Your task to perform on an android device: turn on javascript in the chrome app Image 0: 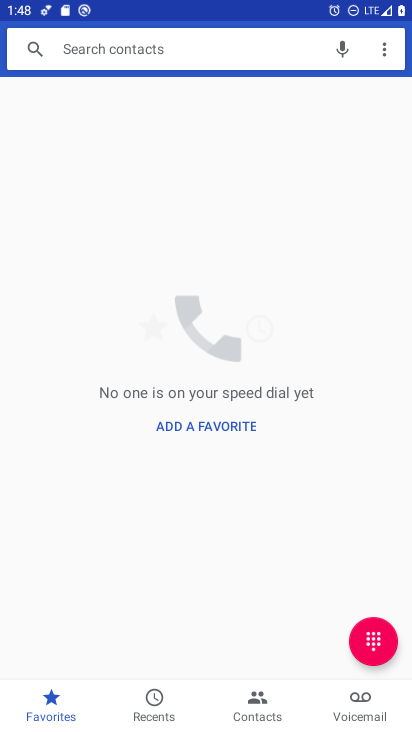
Step 0: press home button
Your task to perform on an android device: turn on javascript in the chrome app Image 1: 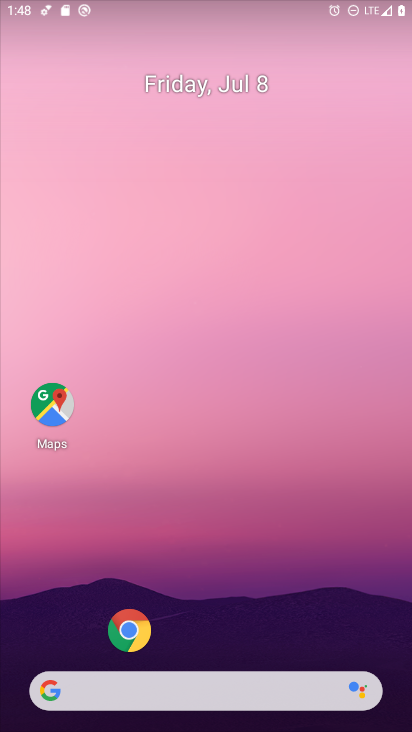
Step 1: drag from (339, 679) to (367, 31)
Your task to perform on an android device: turn on javascript in the chrome app Image 2: 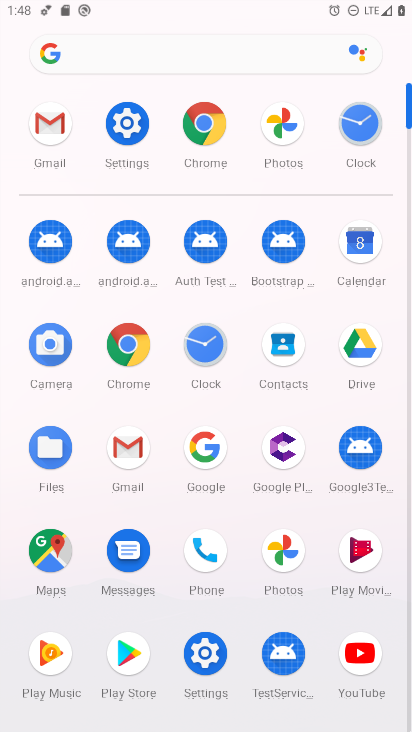
Step 2: click (142, 349)
Your task to perform on an android device: turn on javascript in the chrome app Image 3: 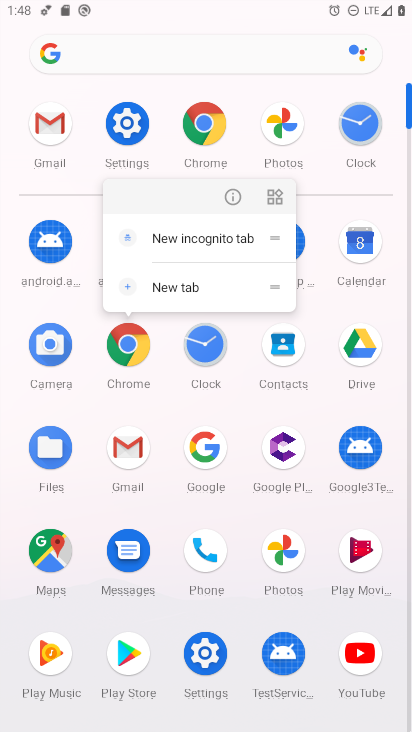
Step 3: click (142, 349)
Your task to perform on an android device: turn on javascript in the chrome app Image 4: 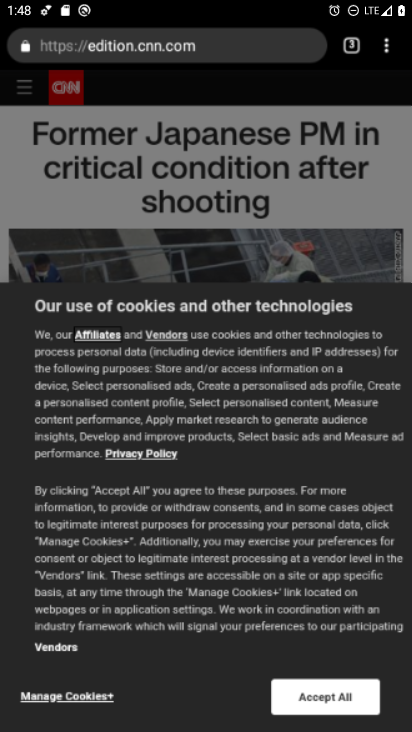
Step 4: drag from (383, 47) to (312, 317)
Your task to perform on an android device: turn on javascript in the chrome app Image 5: 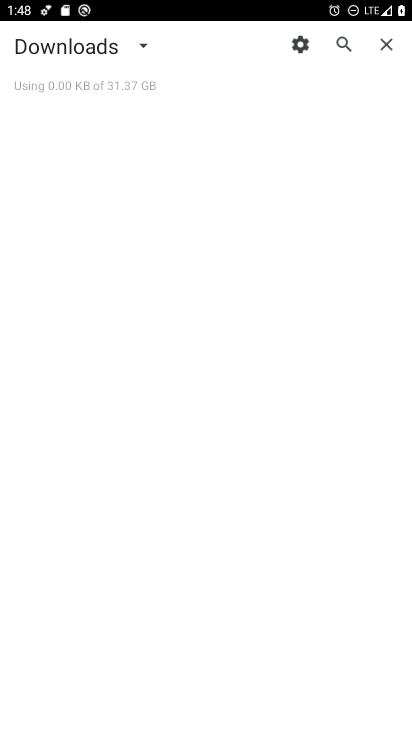
Step 5: press back button
Your task to perform on an android device: turn on javascript in the chrome app Image 6: 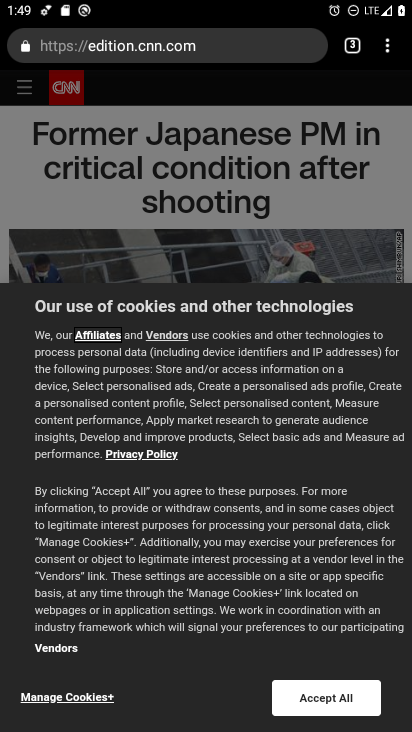
Step 6: drag from (386, 44) to (244, 500)
Your task to perform on an android device: turn on javascript in the chrome app Image 7: 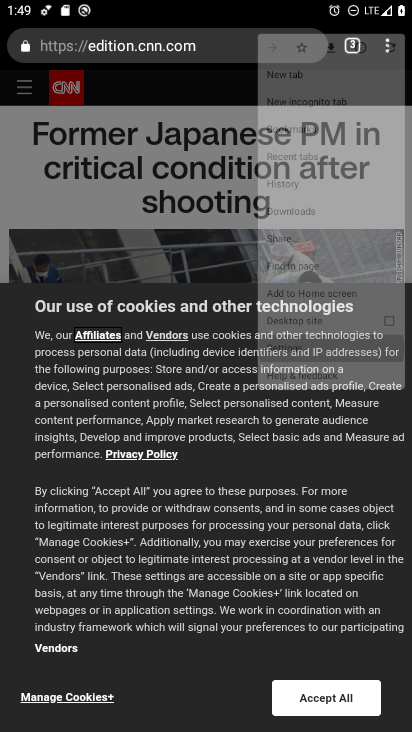
Step 7: click (253, 501)
Your task to perform on an android device: turn on javascript in the chrome app Image 8: 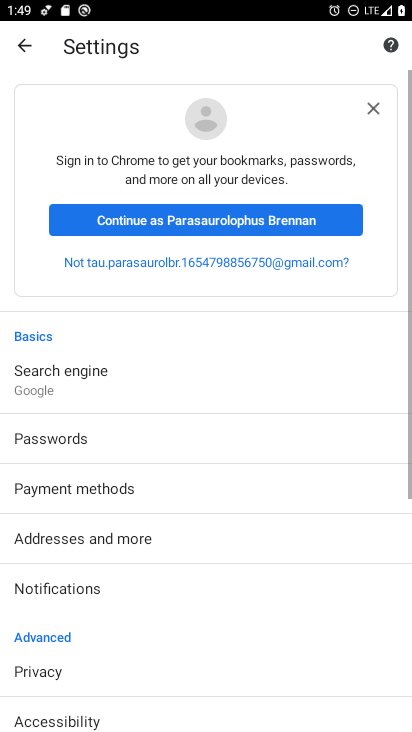
Step 8: drag from (96, 608) to (156, 282)
Your task to perform on an android device: turn on javascript in the chrome app Image 9: 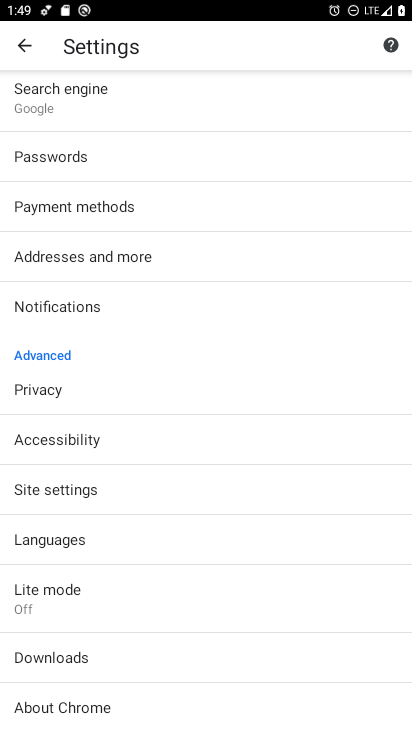
Step 9: click (94, 487)
Your task to perform on an android device: turn on javascript in the chrome app Image 10: 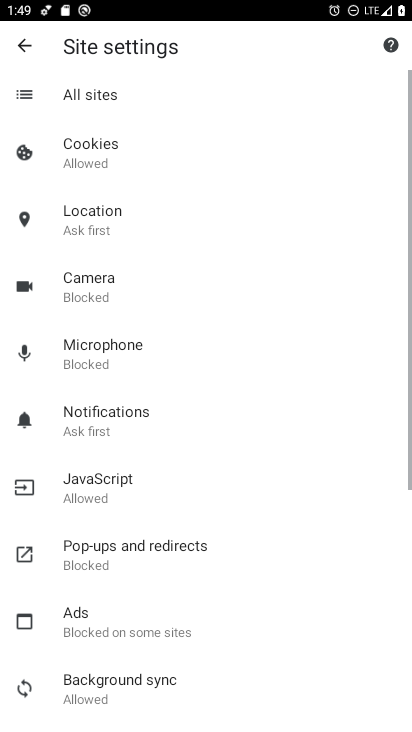
Step 10: click (125, 494)
Your task to perform on an android device: turn on javascript in the chrome app Image 11: 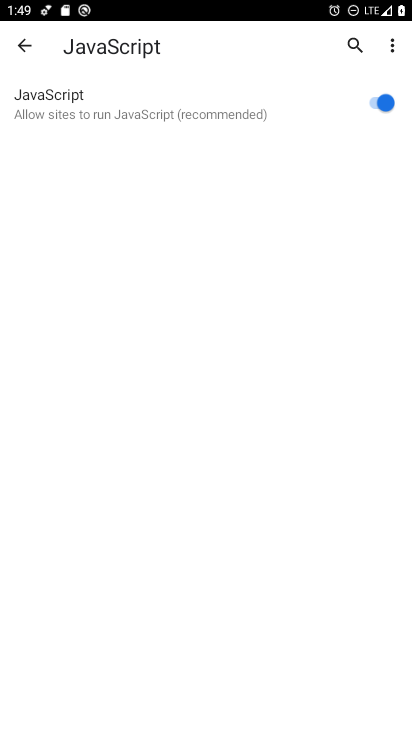
Step 11: task complete